Your task to perform on an android device: snooze an email in the gmail app Image 0: 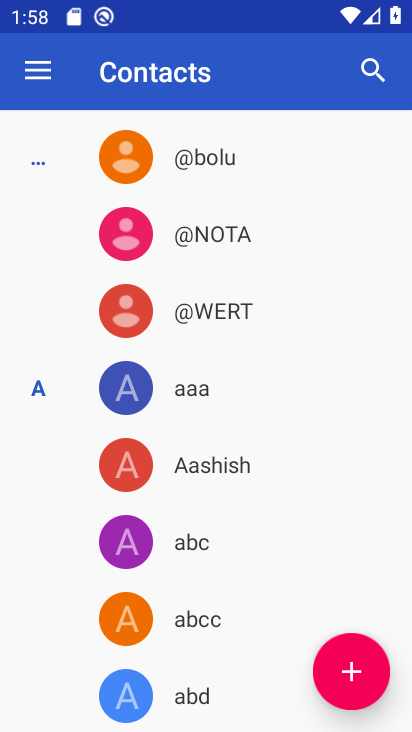
Step 0: press back button
Your task to perform on an android device: snooze an email in the gmail app Image 1: 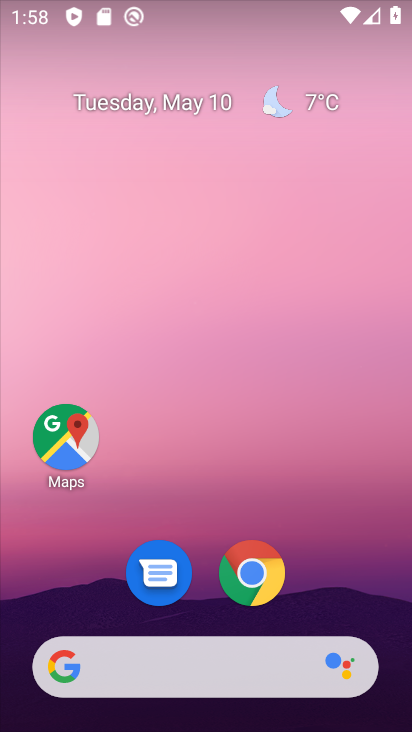
Step 1: drag from (89, 625) to (256, 9)
Your task to perform on an android device: snooze an email in the gmail app Image 2: 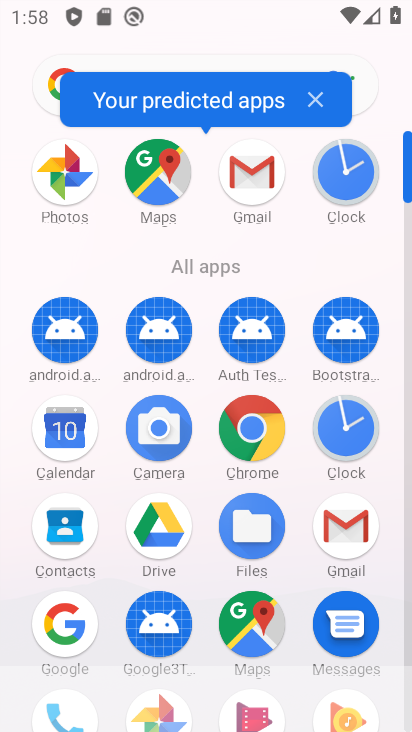
Step 2: drag from (171, 635) to (227, 370)
Your task to perform on an android device: snooze an email in the gmail app Image 3: 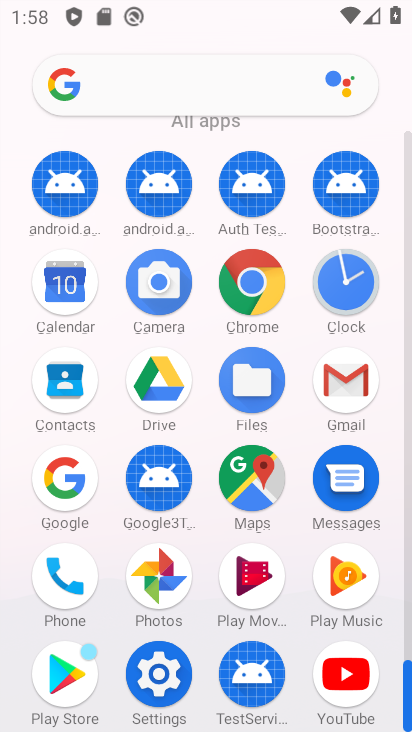
Step 3: click (349, 376)
Your task to perform on an android device: snooze an email in the gmail app Image 4: 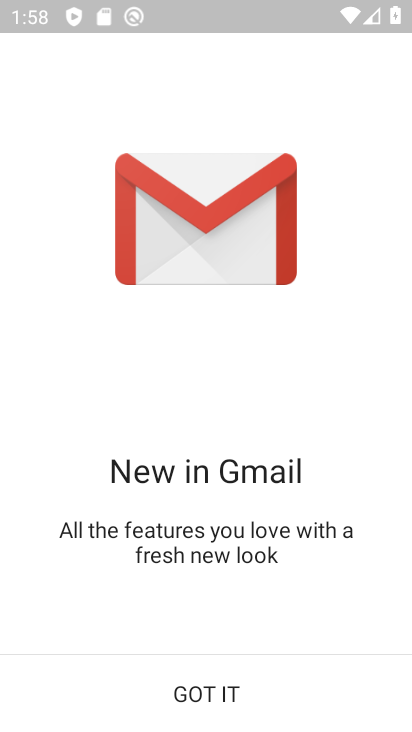
Step 4: click (242, 690)
Your task to perform on an android device: snooze an email in the gmail app Image 5: 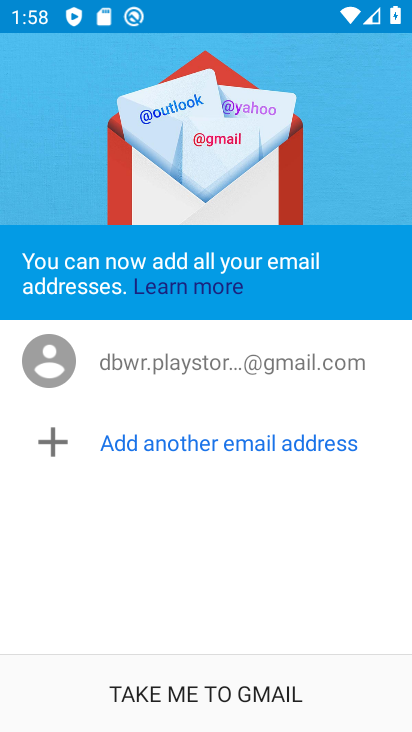
Step 5: click (227, 694)
Your task to perform on an android device: snooze an email in the gmail app Image 6: 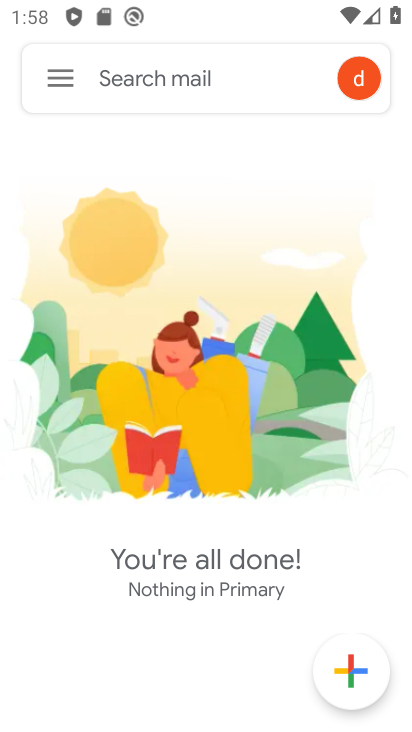
Step 6: click (60, 86)
Your task to perform on an android device: snooze an email in the gmail app Image 7: 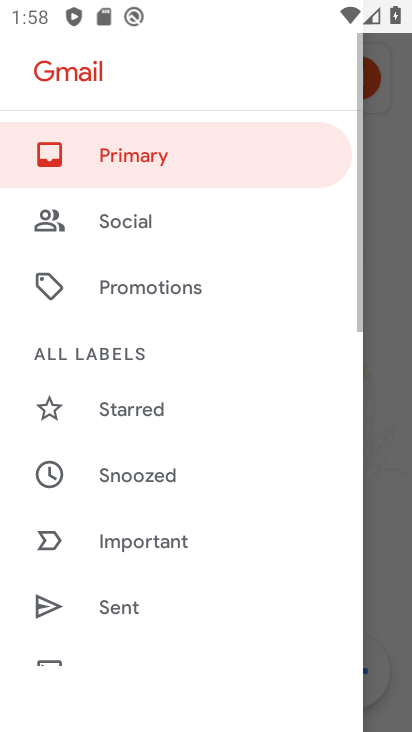
Step 7: drag from (176, 608) to (264, 296)
Your task to perform on an android device: snooze an email in the gmail app Image 8: 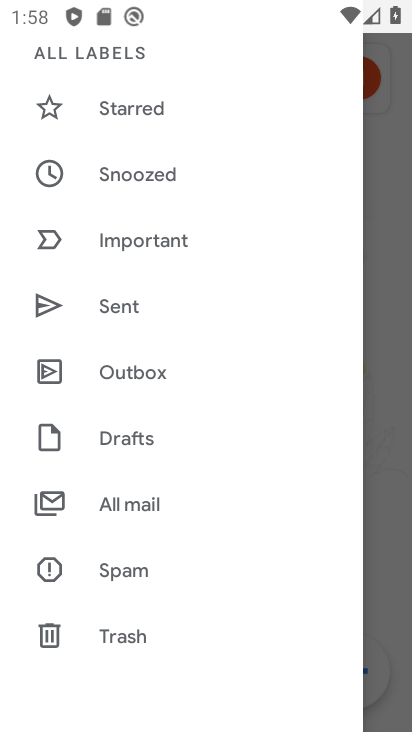
Step 8: click (157, 509)
Your task to perform on an android device: snooze an email in the gmail app Image 9: 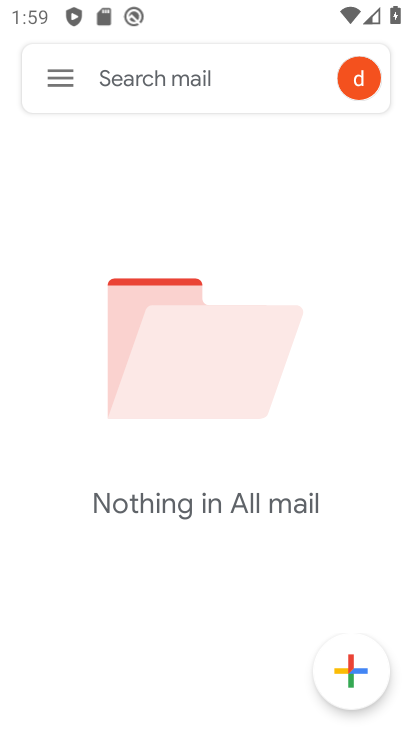
Step 9: task complete